Your task to perform on an android device: Open sound settings Image 0: 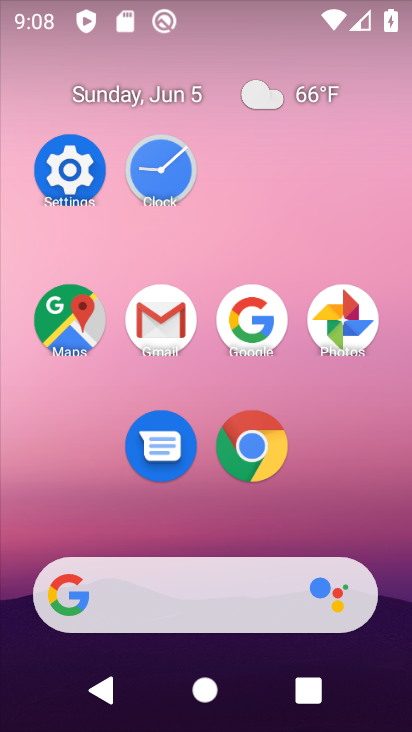
Step 0: click (57, 173)
Your task to perform on an android device: Open sound settings Image 1: 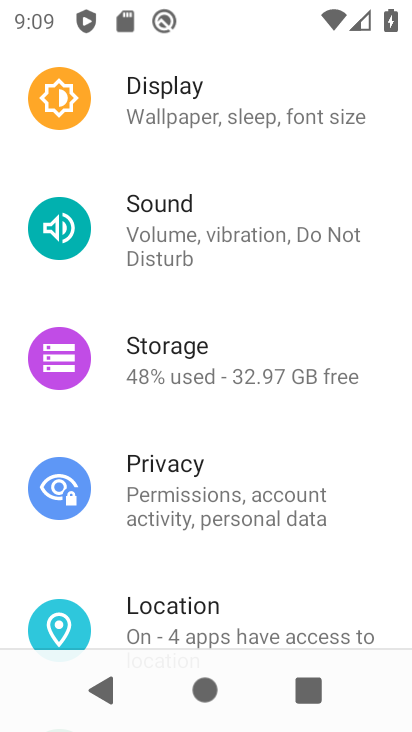
Step 1: click (169, 220)
Your task to perform on an android device: Open sound settings Image 2: 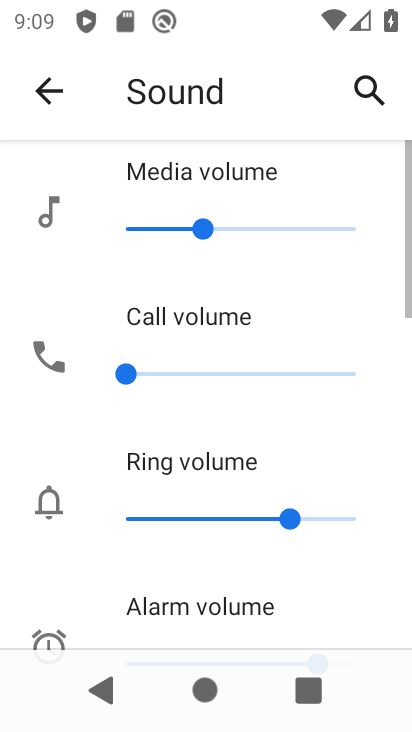
Step 2: task complete